Your task to perform on an android device: Go to Android settings Image 0: 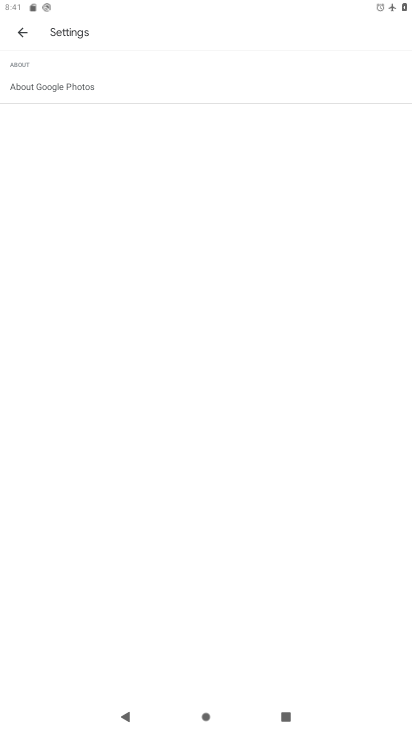
Step 0: press home button
Your task to perform on an android device: Go to Android settings Image 1: 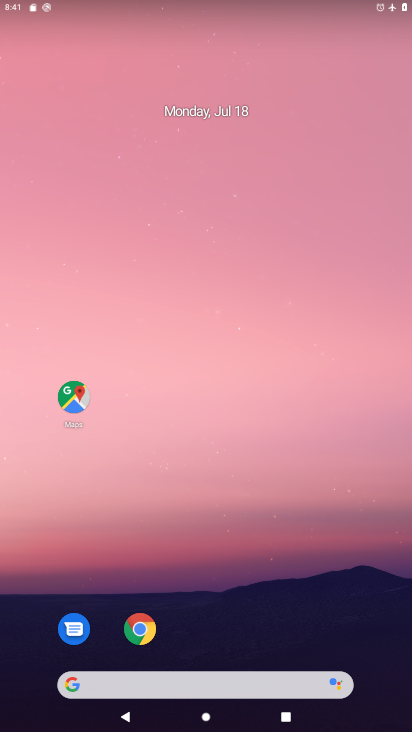
Step 1: drag from (188, 660) to (247, 208)
Your task to perform on an android device: Go to Android settings Image 2: 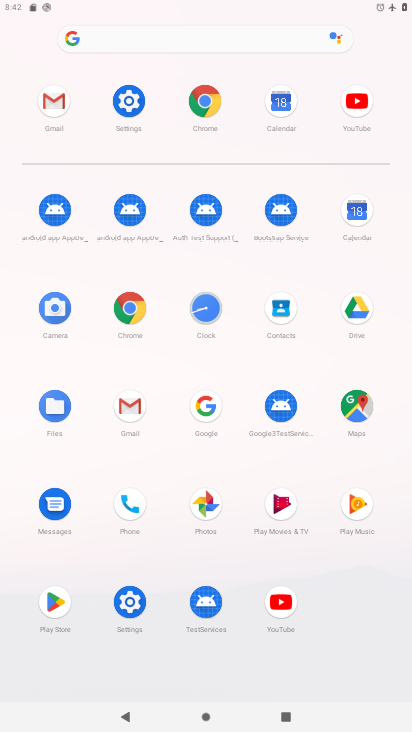
Step 2: click (126, 609)
Your task to perform on an android device: Go to Android settings Image 3: 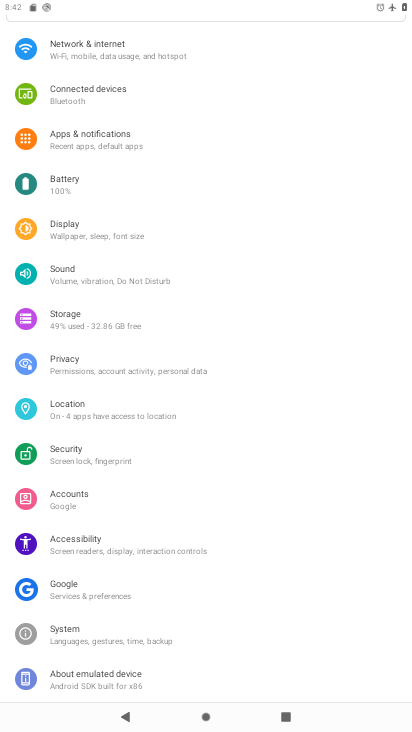
Step 3: drag from (112, 643) to (143, 354)
Your task to perform on an android device: Go to Android settings Image 4: 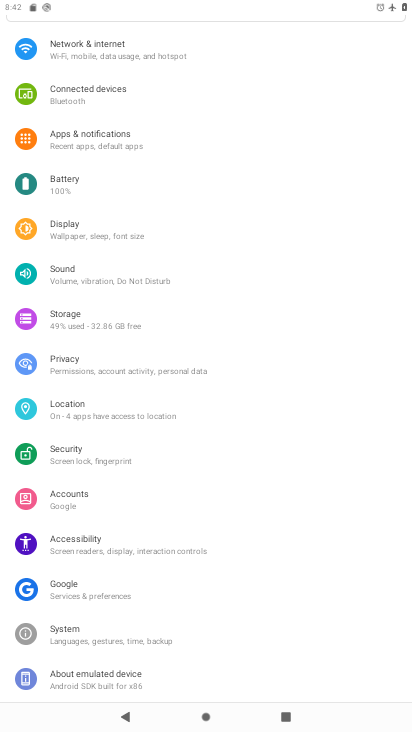
Step 4: drag from (130, 629) to (134, 295)
Your task to perform on an android device: Go to Android settings Image 5: 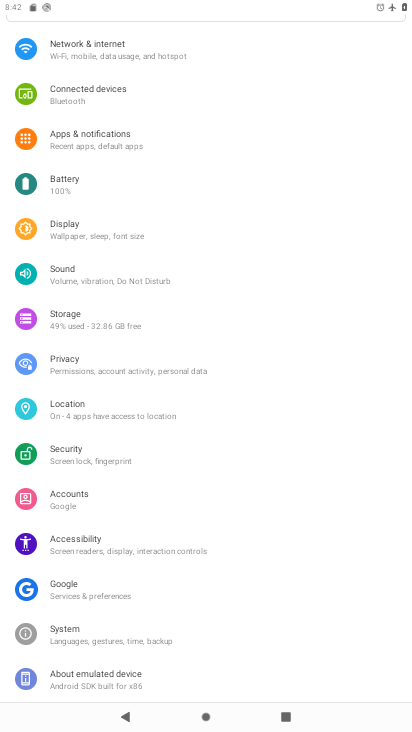
Step 5: drag from (93, 656) to (103, 297)
Your task to perform on an android device: Go to Android settings Image 6: 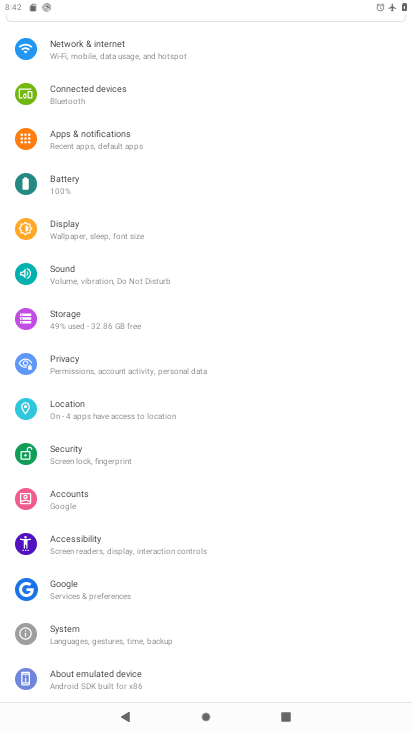
Step 6: drag from (142, 631) to (151, 291)
Your task to perform on an android device: Go to Android settings Image 7: 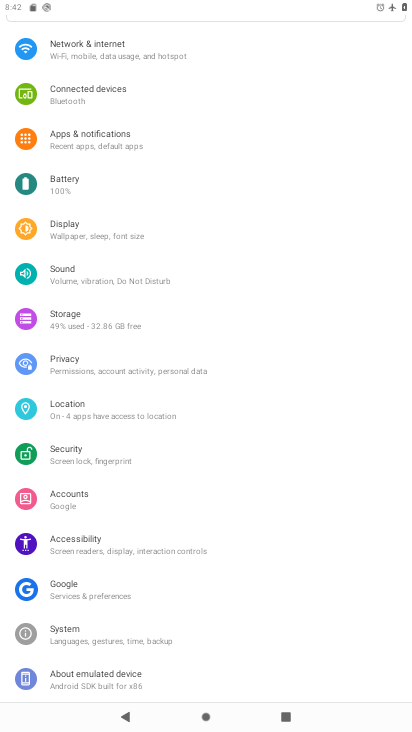
Step 7: click (86, 680)
Your task to perform on an android device: Go to Android settings Image 8: 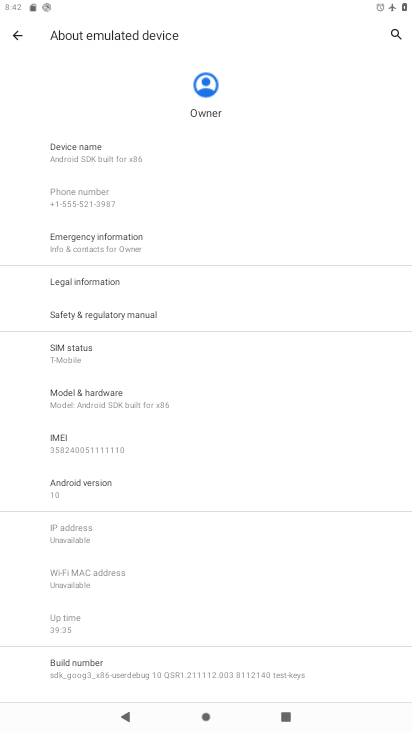
Step 8: click (94, 491)
Your task to perform on an android device: Go to Android settings Image 9: 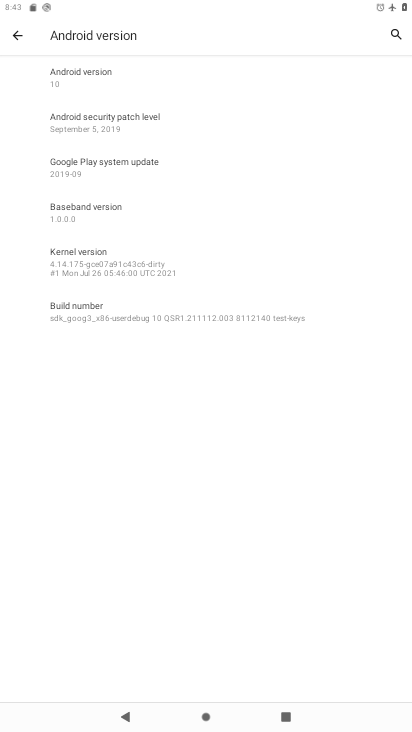
Step 9: task complete